Your task to perform on an android device: clear all cookies in the chrome app Image 0: 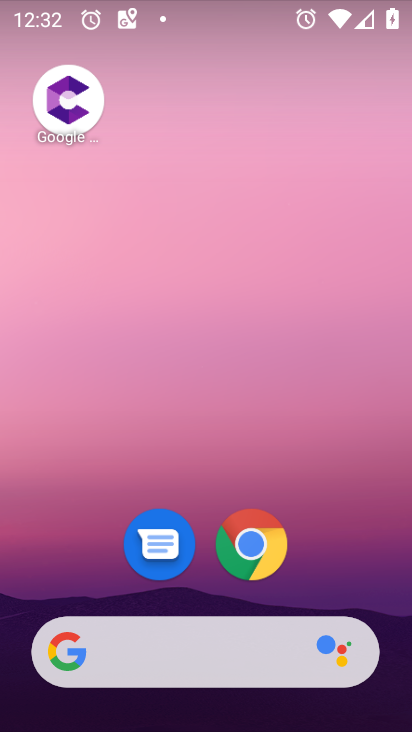
Step 0: click (265, 551)
Your task to perform on an android device: clear all cookies in the chrome app Image 1: 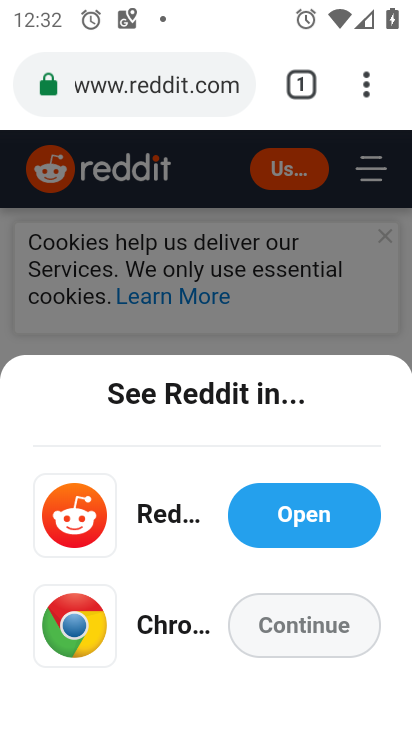
Step 1: click (365, 87)
Your task to perform on an android device: clear all cookies in the chrome app Image 2: 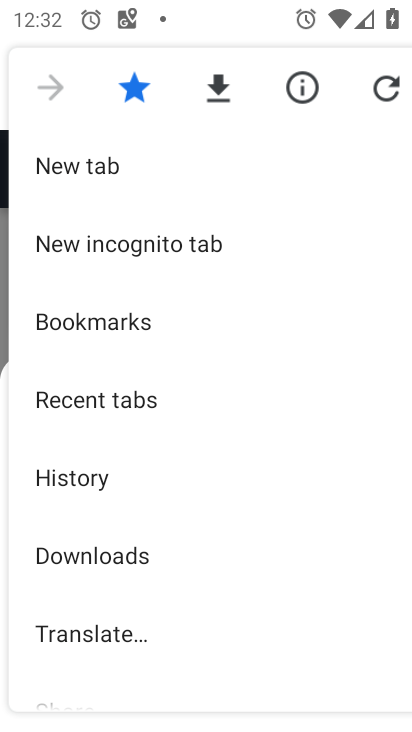
Step 2: drag from (181, 608) to (167, 56)
Your task to perform on an android device: clear all cookies in the chrome app Image 3: 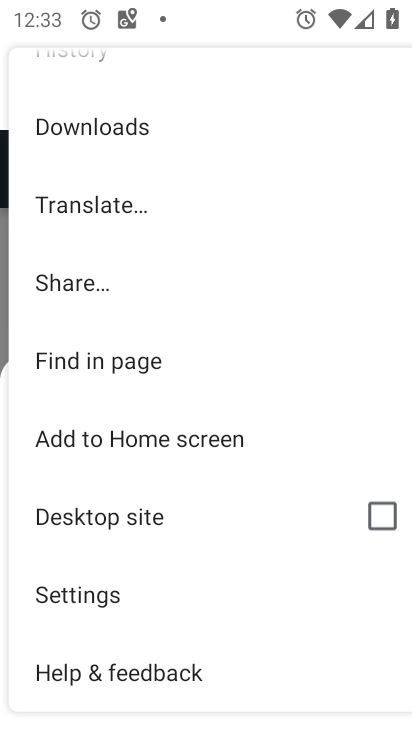
Step 3: click (148, 582)
Your task to perform on an android device: clear all cookies in the chrome app Image 4: 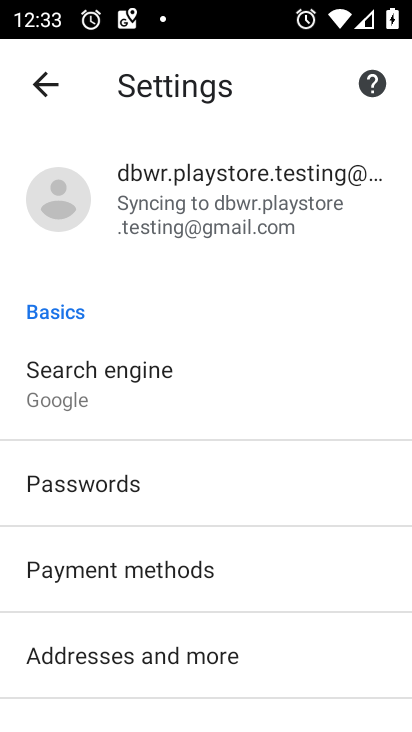
Step 4: drag from (217, 598) to (161, 50)
Your task to perform on an android device: clear all cookies in the chrome app Image 5: 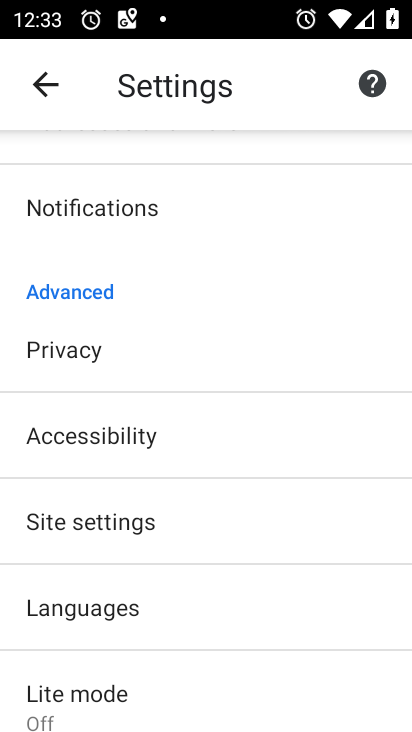
Step 5: click (107, 368)
Your task to perform on an android device: clear all cookies in the chrome app Image 6: 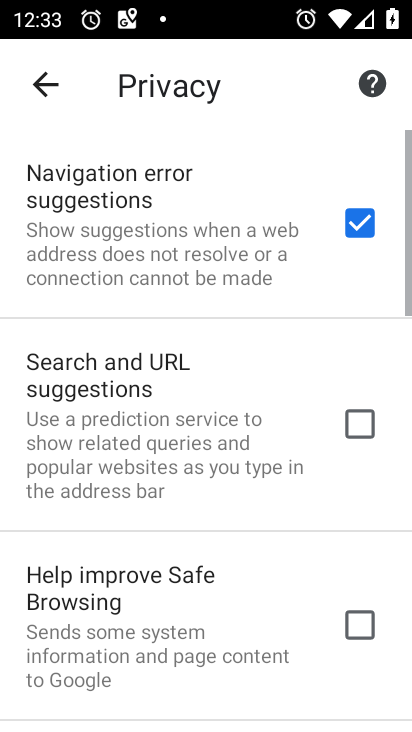
Step 6: drag from (212, 617) to (142, 0)
Your task to perform on an android device: clear all cookies in the chrome app Image 7: 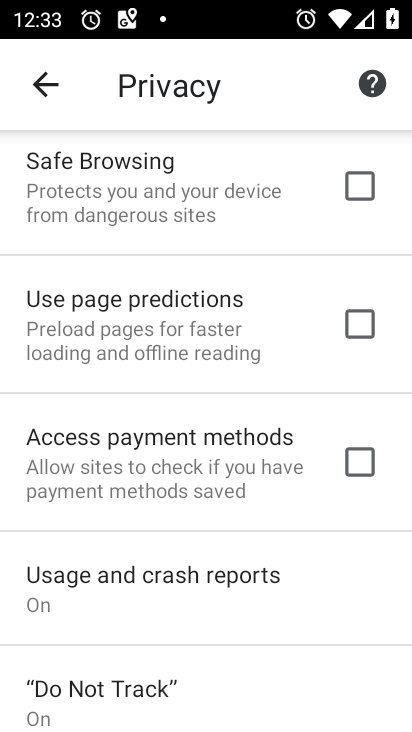
Step 7: drag from (224, 578) to (172, 50)
Your task to perform on an android device: clear all cookies in the chrome app Image 8: 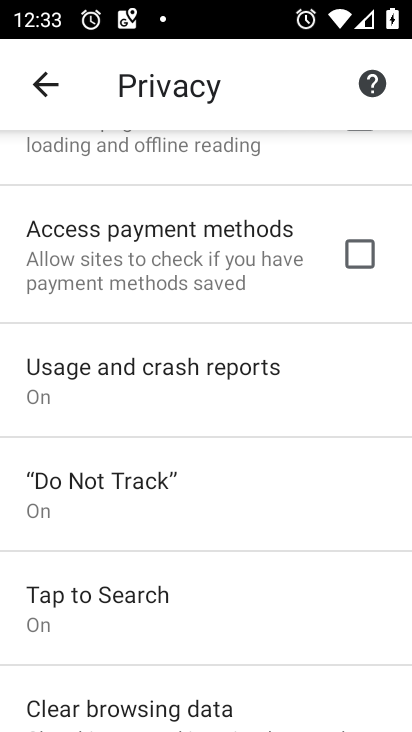
Step 8: click (263, 687)
Your task to perform on an android device: clear all cookies in the chrome app Image 9: 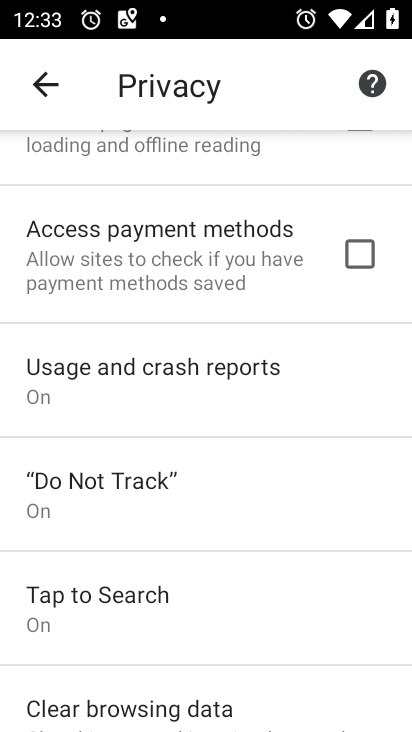
Step 9: click (263, 687)
Your task to perform on an android device: clear all cookies in the chrome app Image 10: 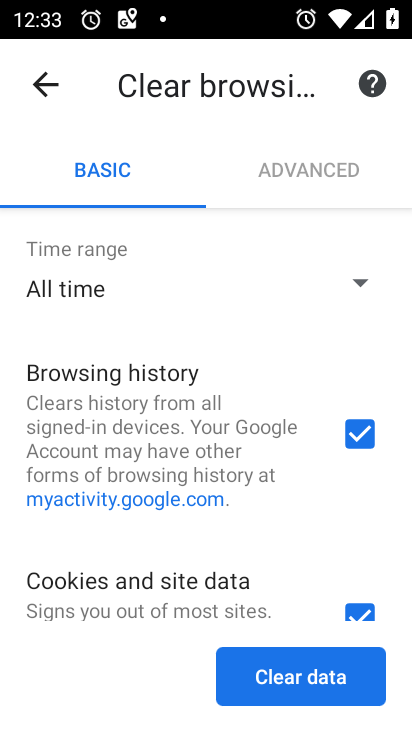
Step 10: click (352, 446)
Your task to perform on an android device: clear all cookies in the chrome app Image 11: 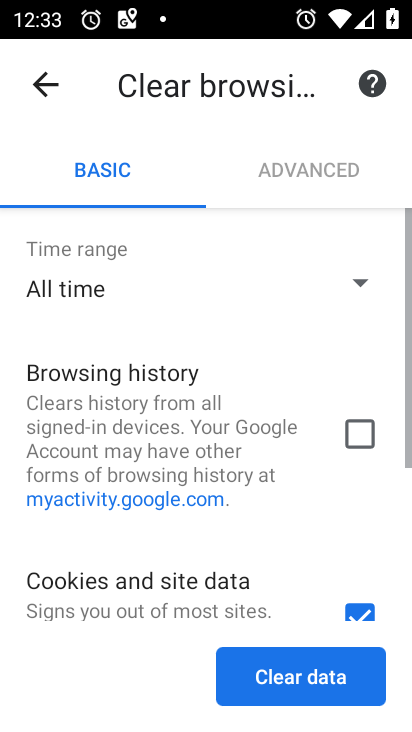
Step 11: click (281, 674)
Your task to perform on an android device: clear all cookies in the chrome app Image 12: 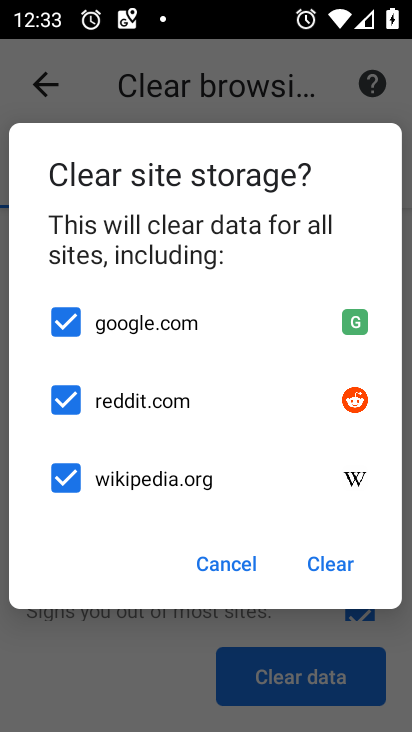
Step 12: click (331, 553)
Your task to perform on an android device: clear all cookies in the chrome app Image 13: 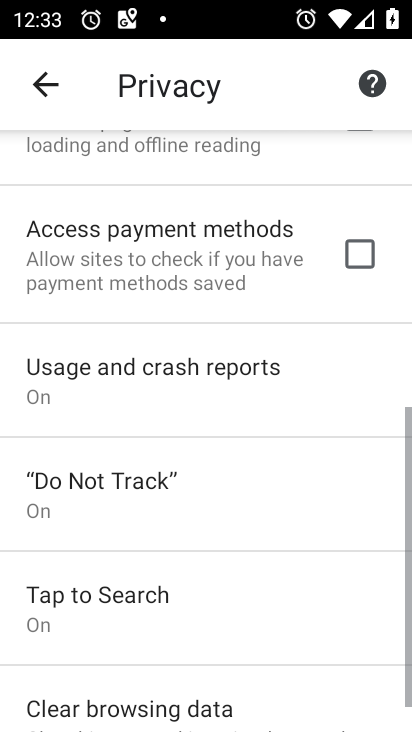
Step 13: task complete